Your task to perform on an android device: add a contact Image 0: 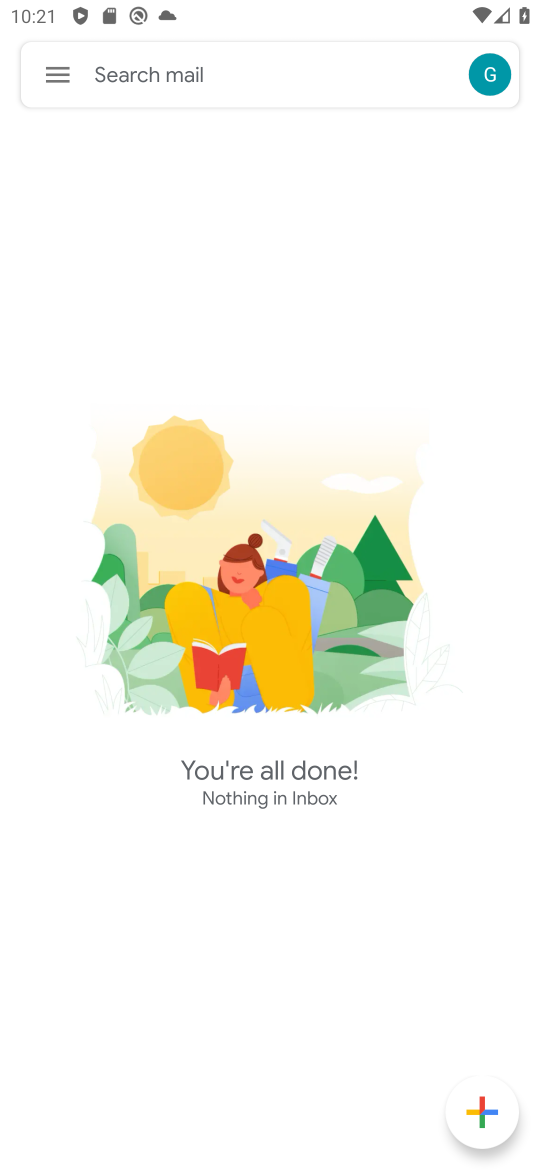
Step 0: press home button
Your task to perform on an android device: add a contact Image 1: 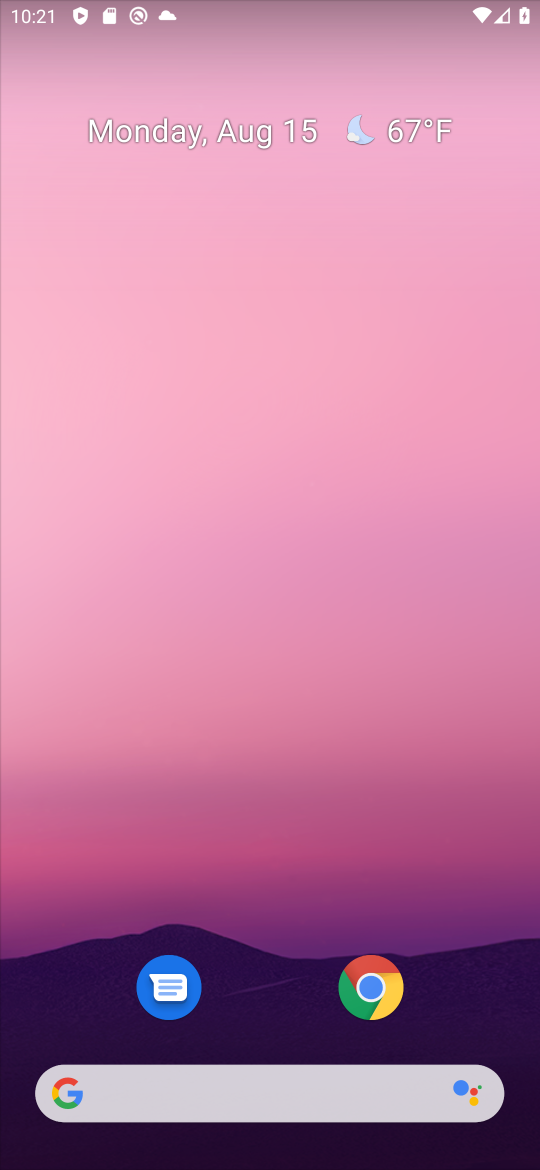
Step 1: drag from (278, 1046) to (164, 49)
Your task to perform on an android device: add a contact Image 2: 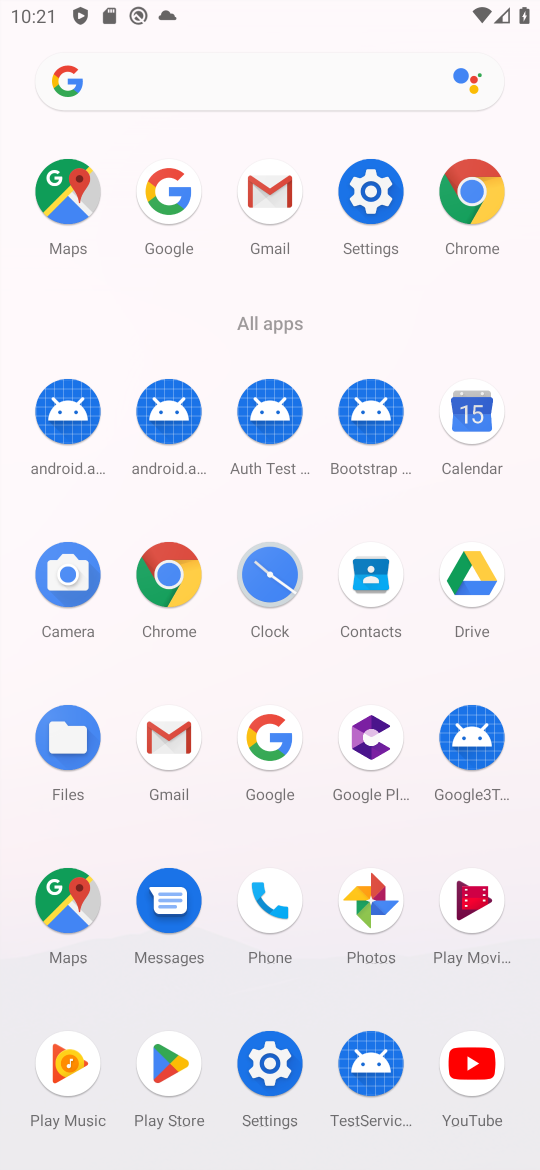
Step 2: click (267, 897)
Your task to perform on an android device: add a contact Image 3: 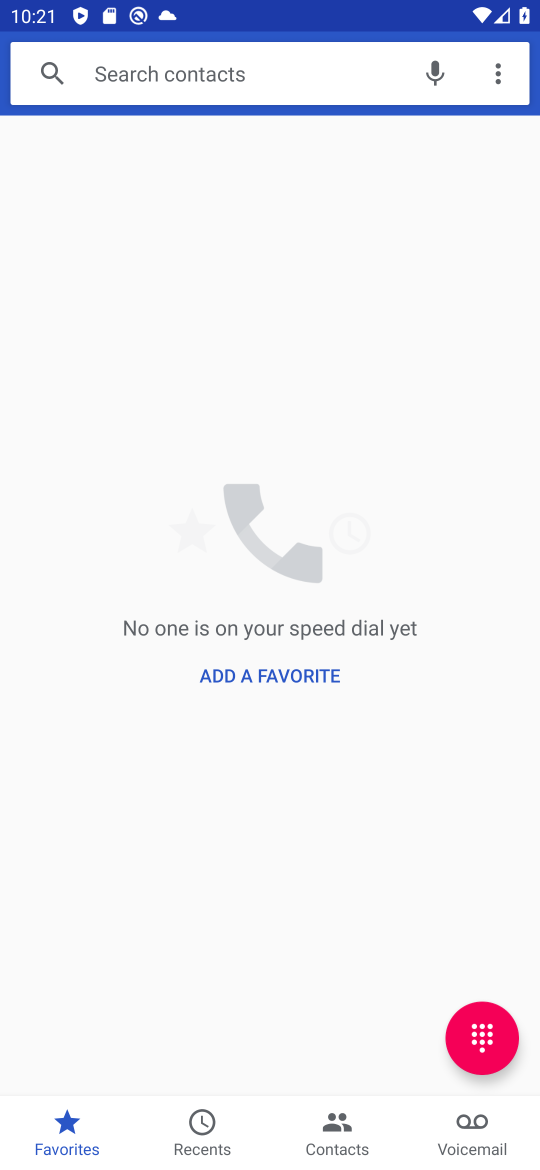
Step 3: click (342, 1133)
Your task to perform on an android device: add a contact Image 4: 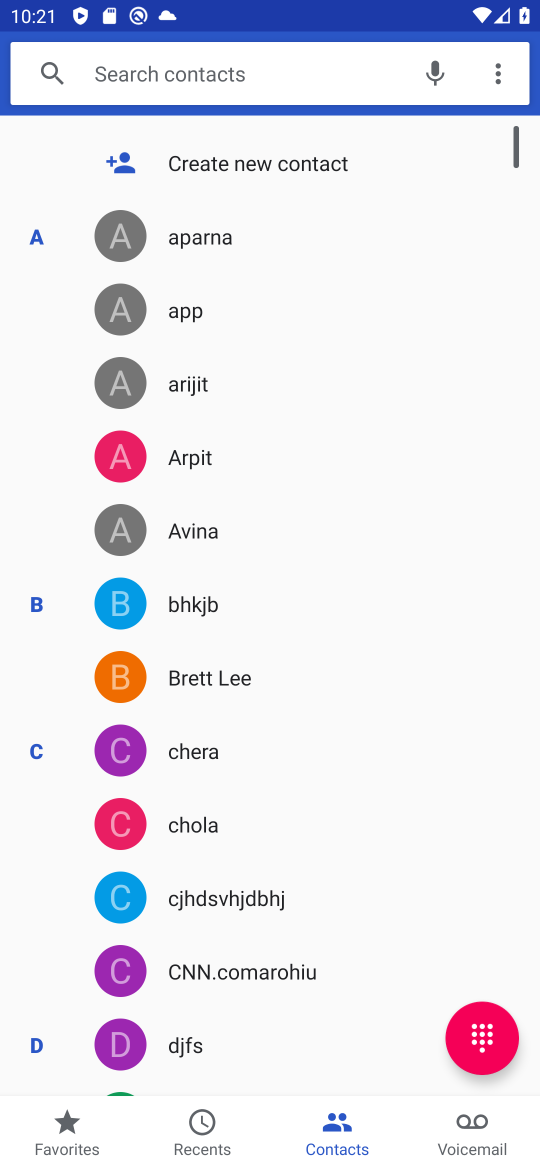
Step 4: click (178, 163)
Your task to perform on an android device: add a contact Image 5: 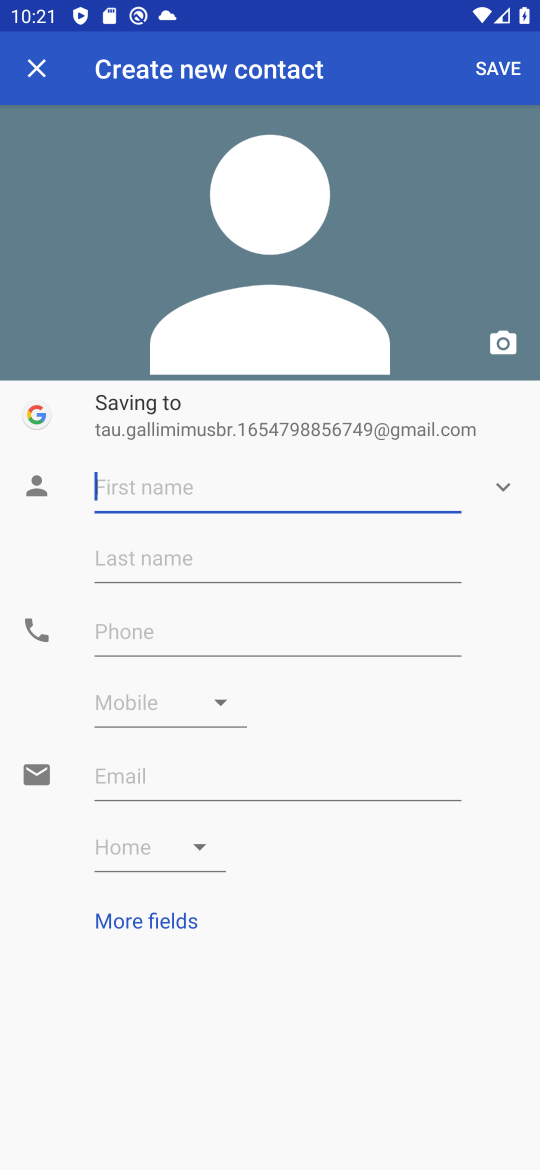
Step 5: type "ddi"
Your task to perform on an android device: add a contact Image 6: 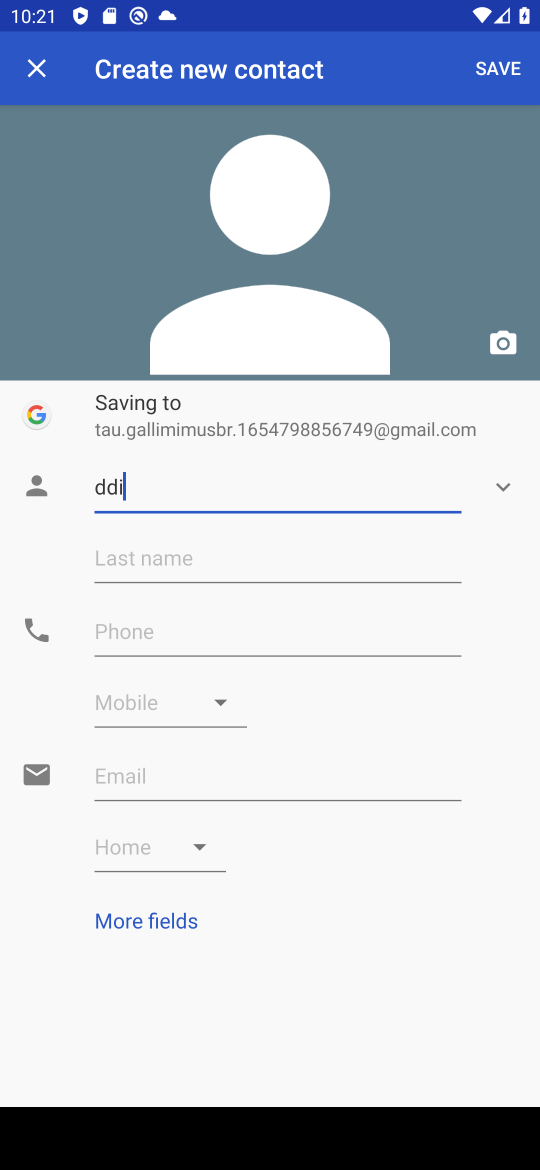
Step 6: task complete